Your task to perform on an android device: open app "Move to iOS" Image 0: 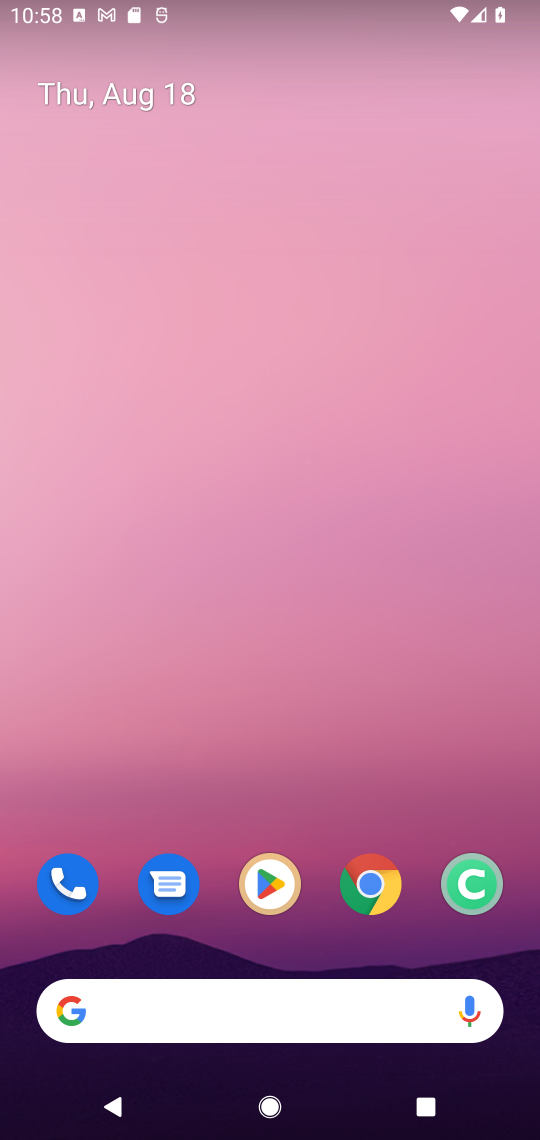
Step 0: press home button
Your task to perform on an android device: open app "Move to iOS" Image 1: 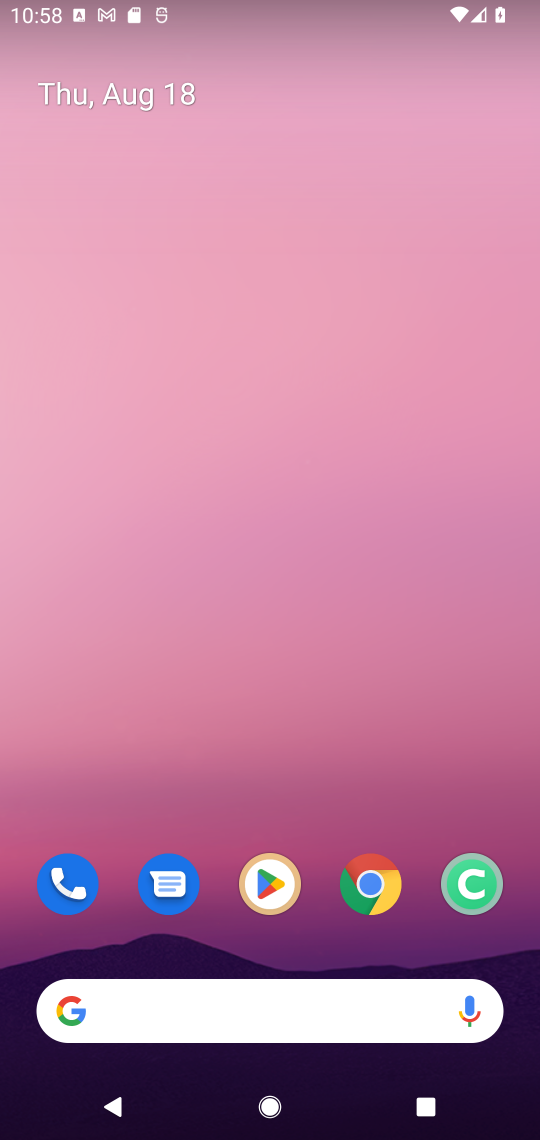
Step 1: drag from (161, 1007) to (362, 206)
Your task to perform on an android device: open app "Move to iOS" Image 2: 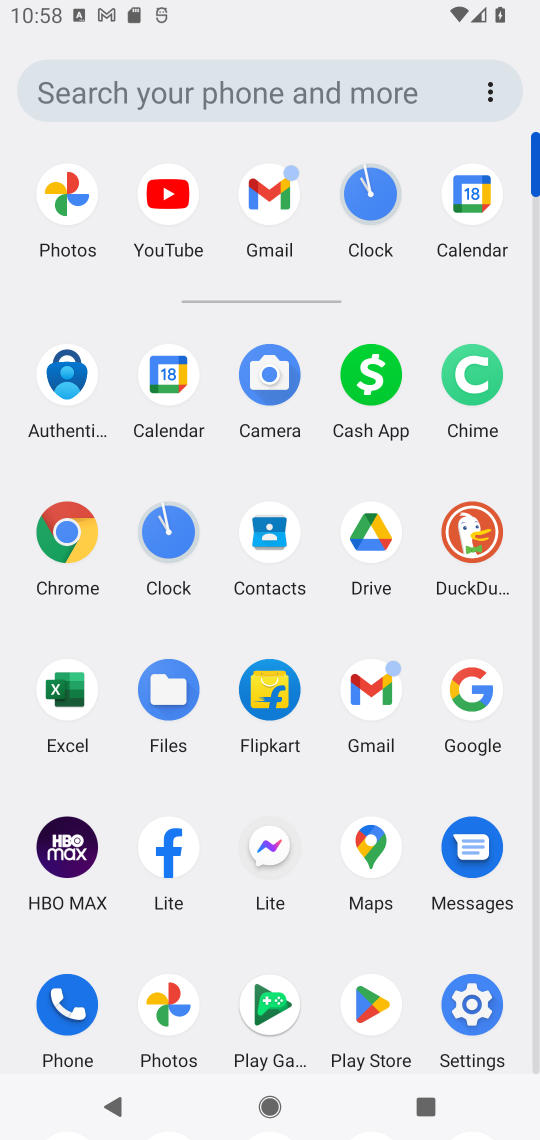
Step 2: click (379, 1004)
Your task to perform on an android device: open app "Move to iOS" Image 3: 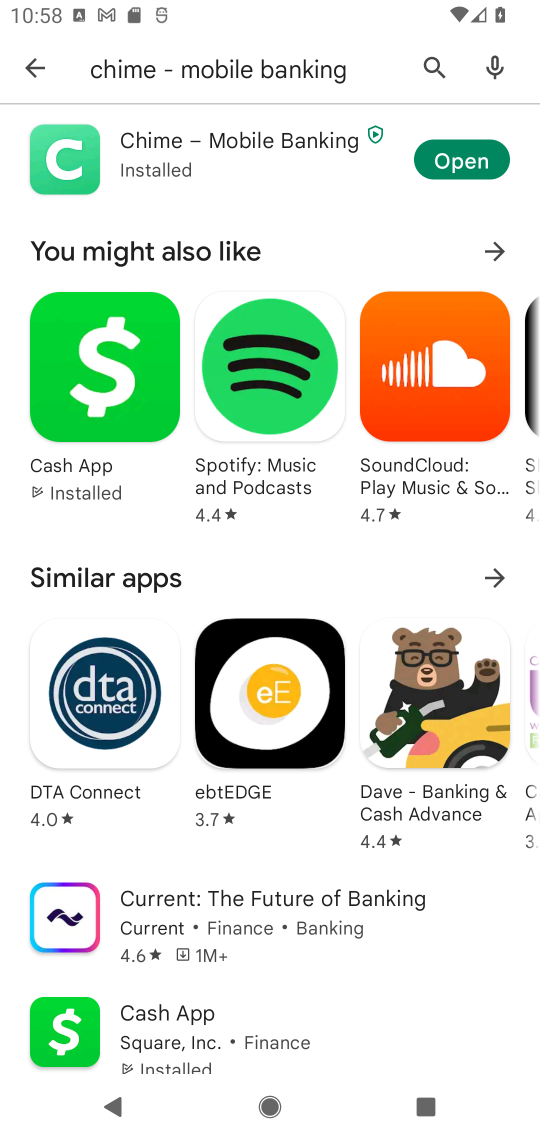
Step 3: press back button
Your task to perform on an android device: open app "Move to iOS" Image 4: 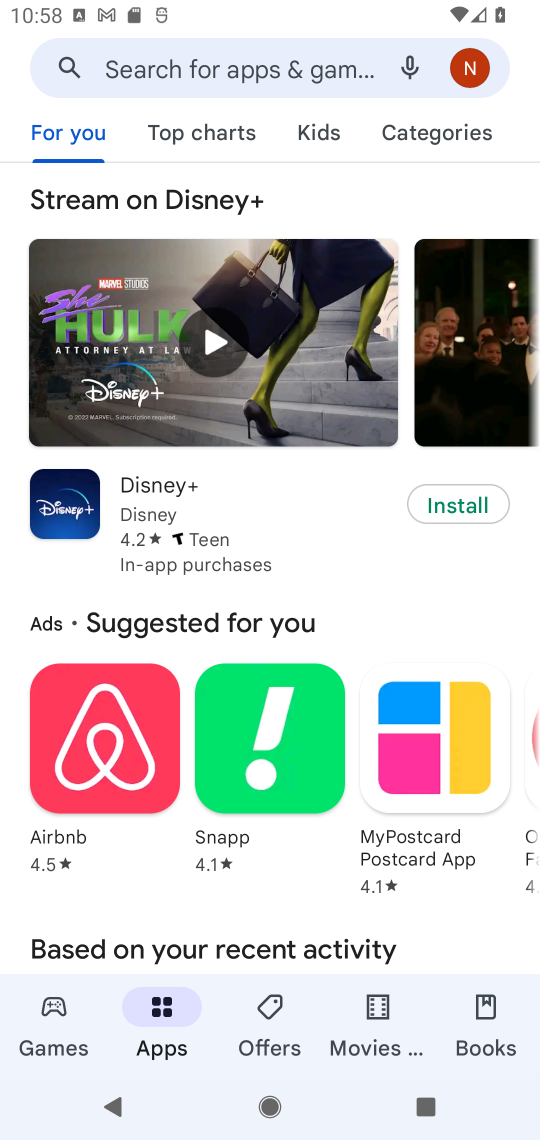
Step 4: click (143, 61)
Your task to perform on an android device: open app "Move to iOS" Image 5: 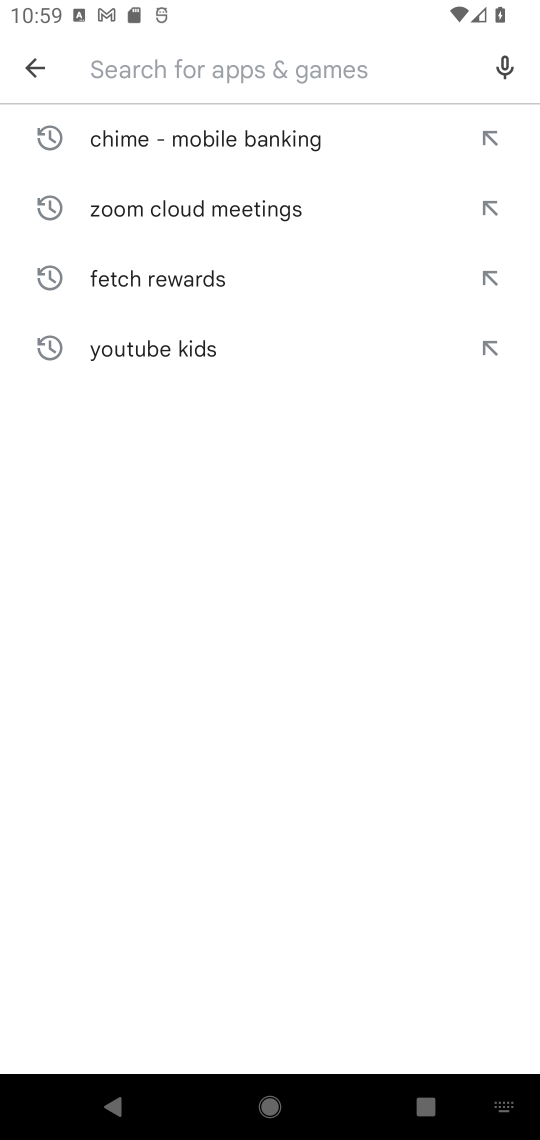
Step 5: type "Move to iOS"
Your task to perform on an android device: open app "Move to iOS" Image 6: 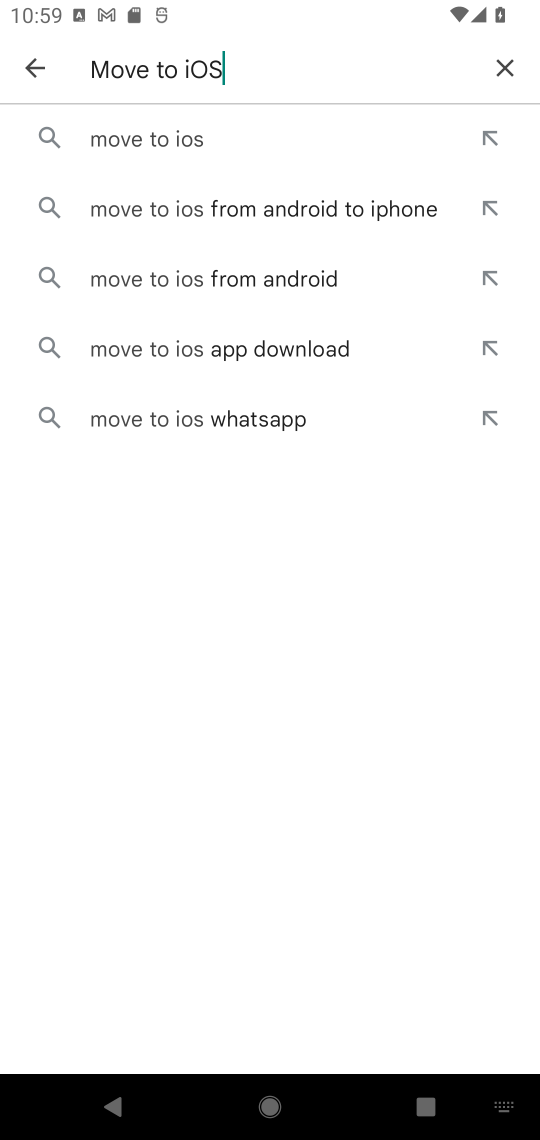
Step 6: click (155, 150)
Your task to perform on an android device: open app "Move to iOS" Image 7: 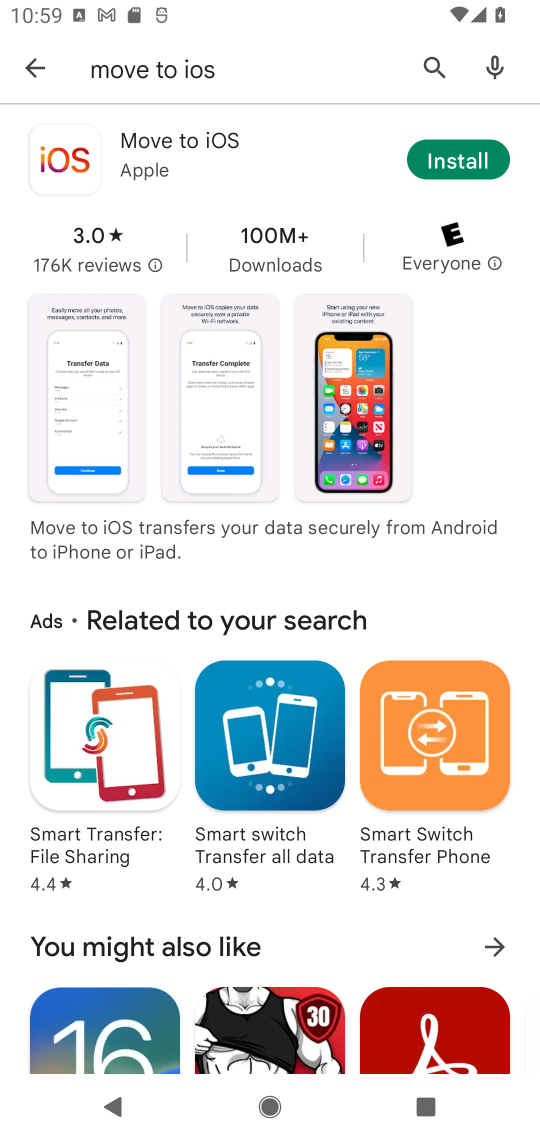
Step 7: task complete